Your task to perform on an android device: Open eBay Image 0: 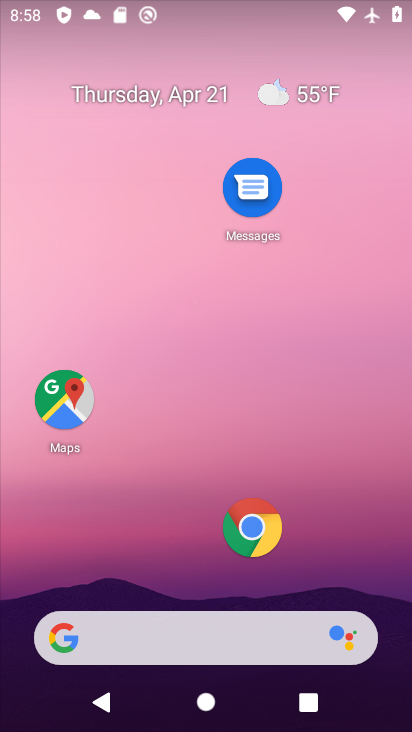
Step 0: drag from (185, 629) to (327, 157)
Your task to perform on an android device: Open eBay Image 1: 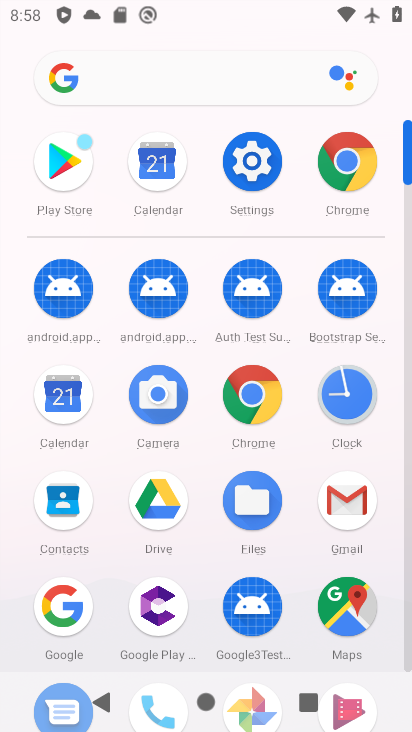
Step 1: click (358, 174)
Your task to perform on an android device: Open eBay Image 2: 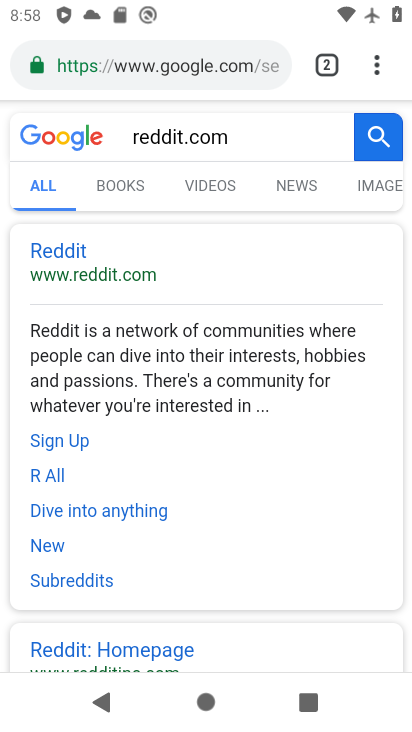
Step 2: click (371, 75)
Your task to perform on an android device: Open eBay Image 3: 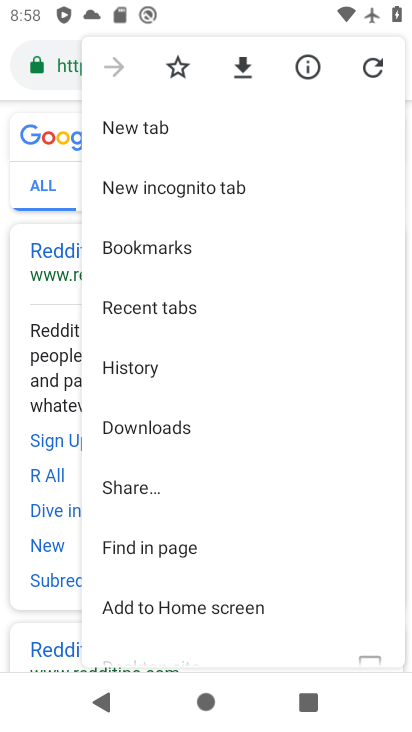
Step 3: click (150, 128)
Your task to perform on an android device: Open eBay Image 4: 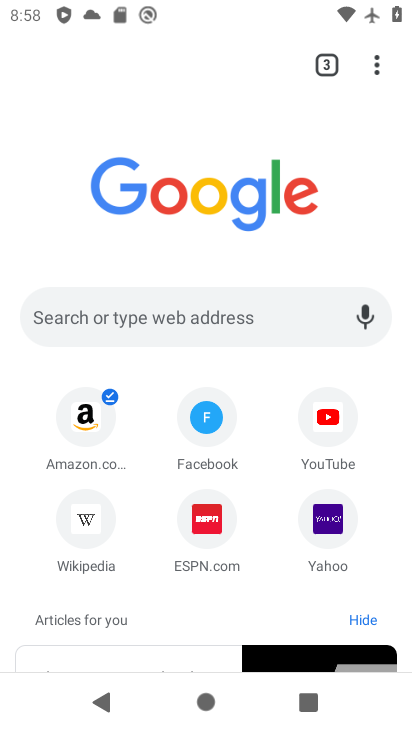
Step 4: drag from (152, 541) to (266, 442)
Your task to perform on an android device: Open eBay Image 5: 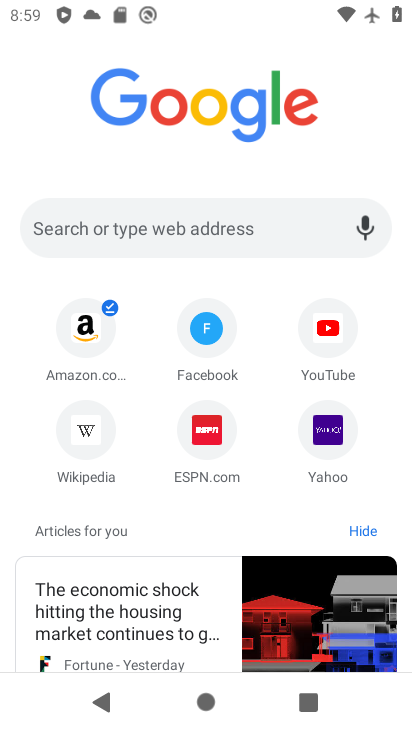
Step 5: click (119, 220)
Your task to perform on an android device: Open eBay Image 6: 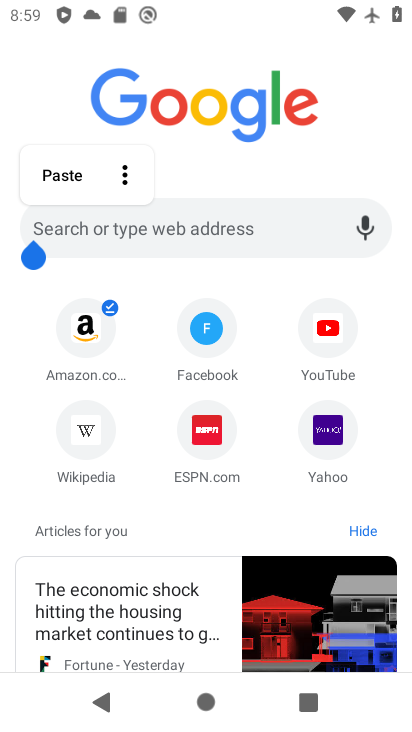
Step 6: click (67, 229)
Your task to perform on an android device: Open eBay Image 7: 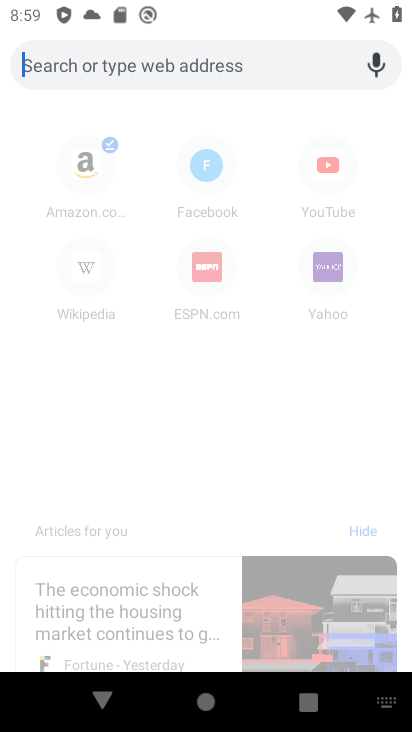
Step 7: type "ebay"
Your task to perform on an android device: Open eBay Image 8: 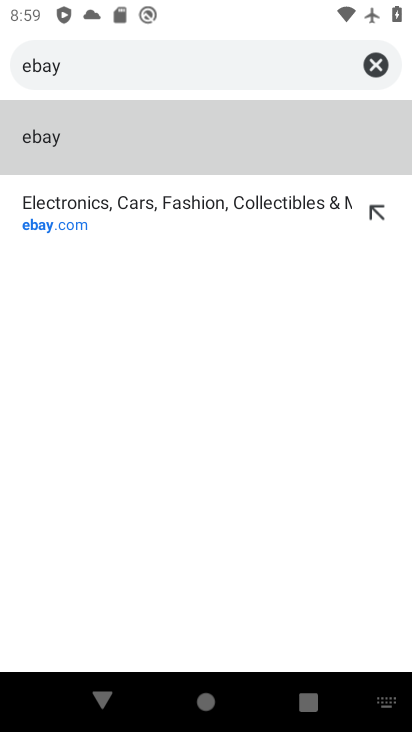
Step 8: click (52, 136)
Your task to perform on an android device: Open eBay Image 9: 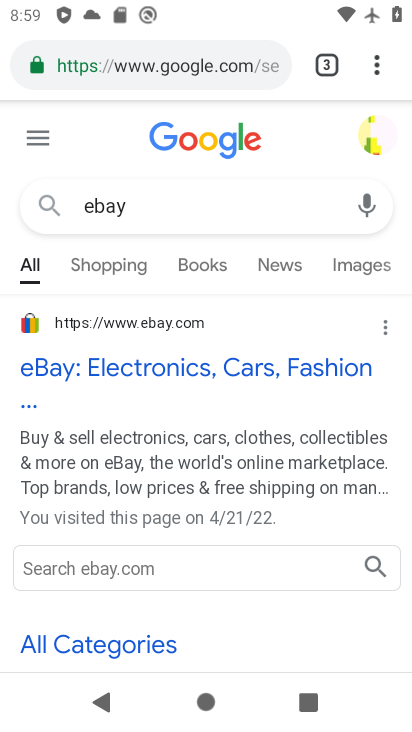
Step 9: click (224, 367)
Your task to perform on an android device: Open eBay Image 10: 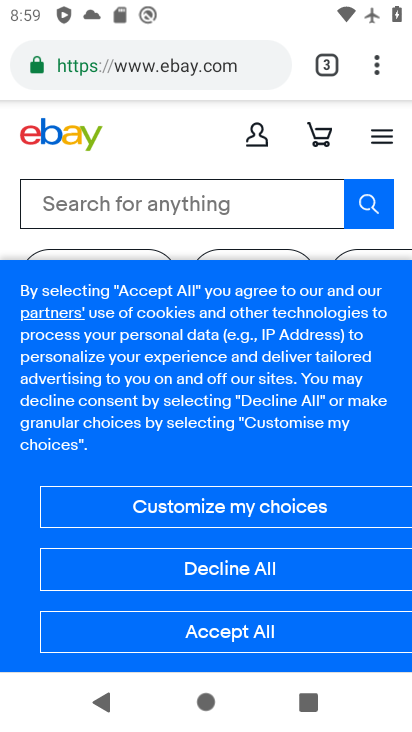
Step 10: task complete